Your task to perform on an android device: Open ESPN.com Image 0: 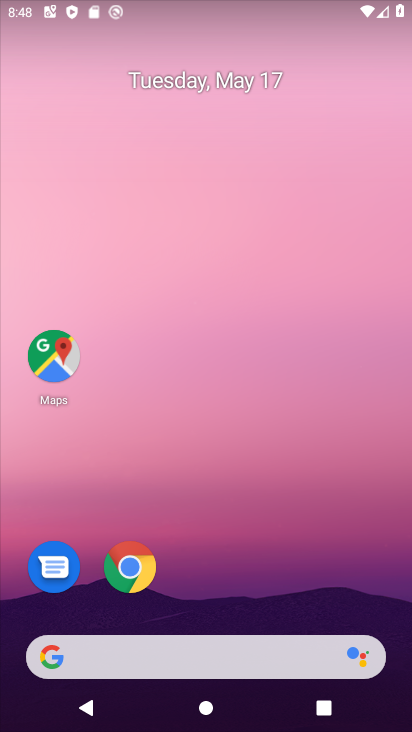
Step 0: click (127, 562)
Your task to perform on an android device: Open ESPN.com Image 1: 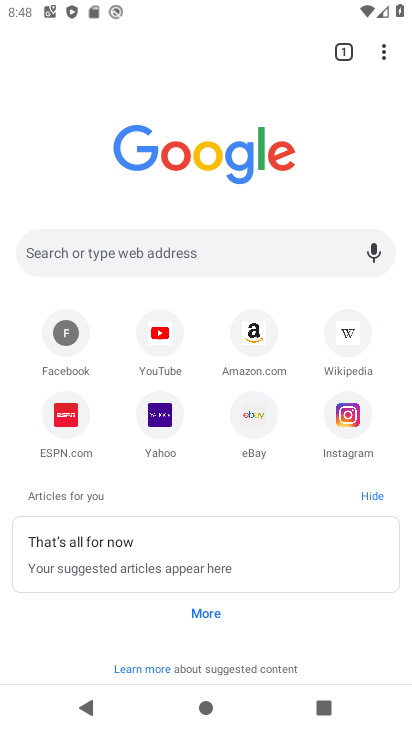
Step 1: click (64, 413)
Your task to perform on an android device: Open ESPN.com Image 2: 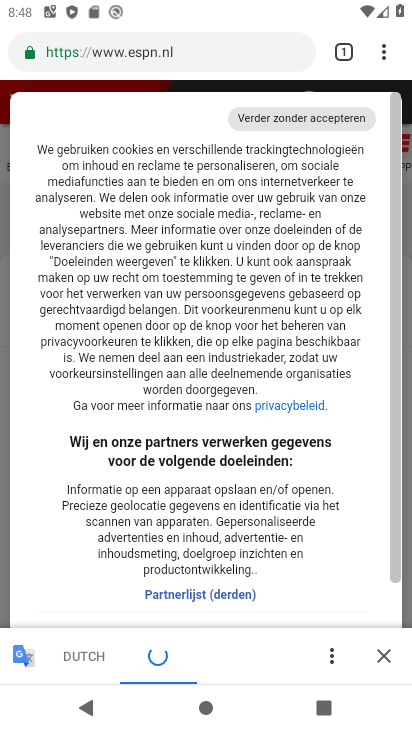
Step 2: task complete